Your task to perform on an android device: Go to Android settings Image 0: 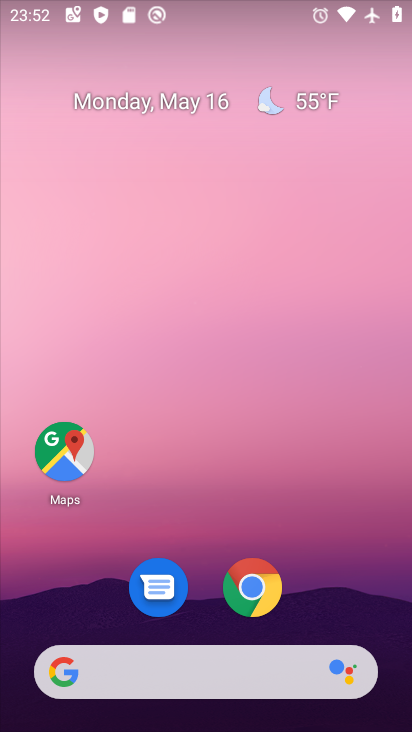
Step 0: drag from (318, 567) to (247, 24)
Your task to perform on an android device: Go to Android settings Image 1: 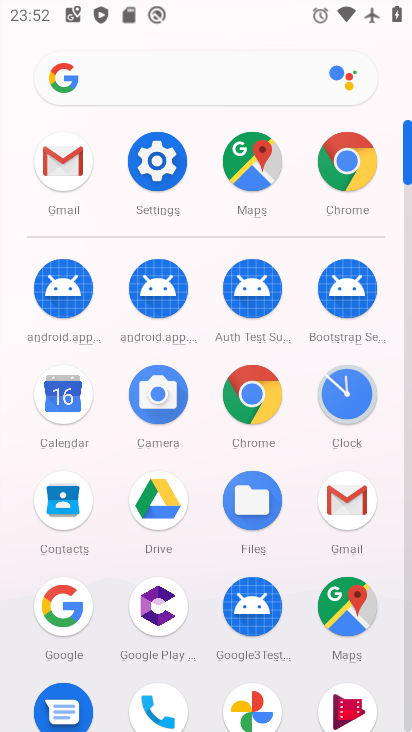
Step 1: drag from (4, 570) to (4, 273)
Your task to perform on an android device: Go to Android settings Image 2: 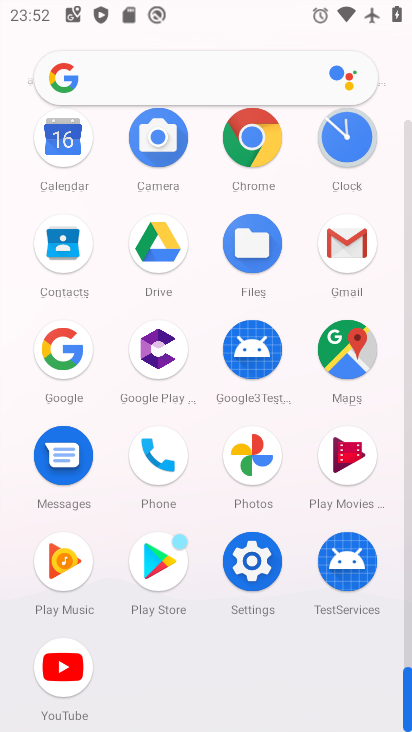
Step 2: click (249, 560)
Your task to perform on an android device: Go to Android settings Image 3: 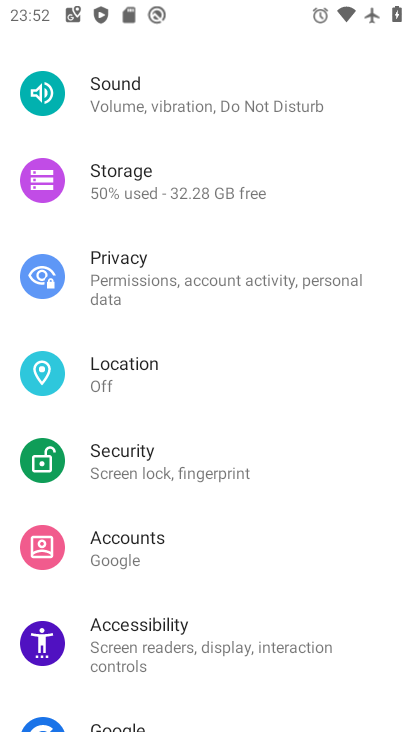
Step 3: task complete